Your task to perform on an android device: Open the Play Movies app and select the watchlist tab. Image 0: 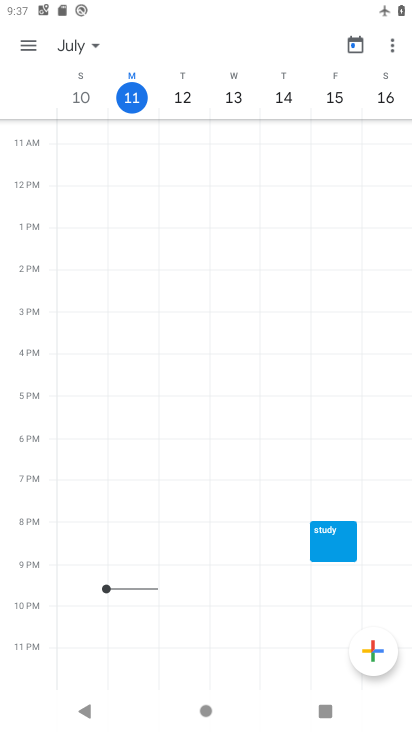
Step 0: press home button
Your task to perform on an android device: Open the Play Movies app and select the watchlist tab. Image 1: 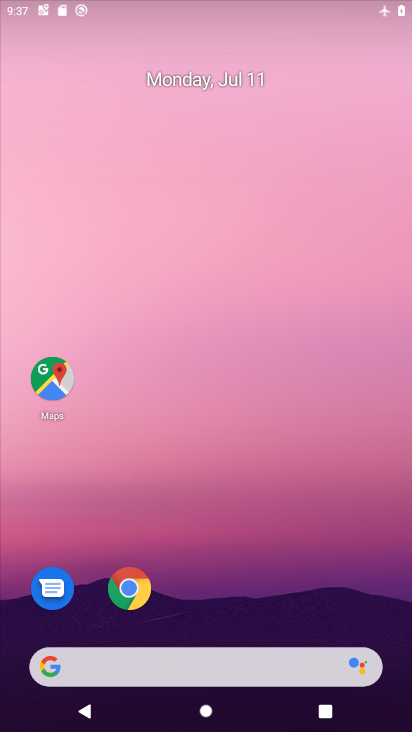
Step 1: drag from (238, 577) to (266, 87)
Your task to perform on an android device: Open the Play Movies app and select the watchlist tab. Image 2: 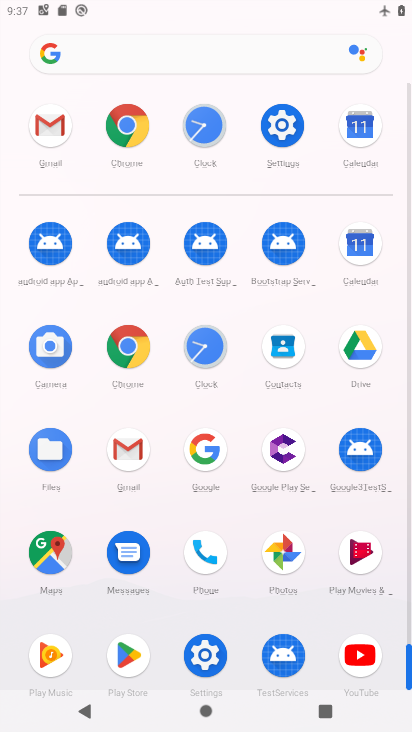
Step 2: click (356, 548)
Your task to perform on an android device: Open the Play Movies app and select the watchlist tab. Image 3: 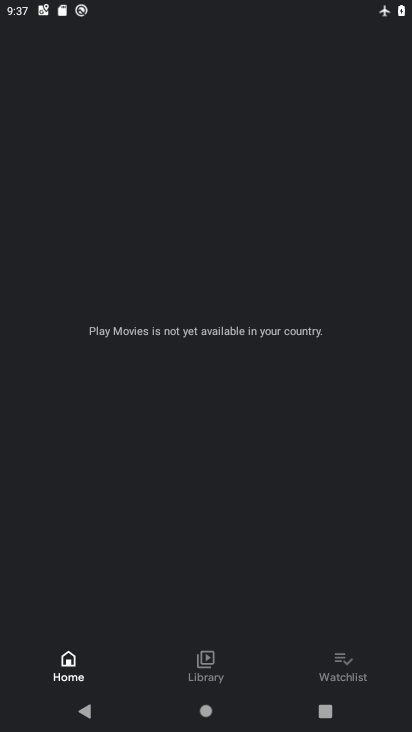
Step 3: click (340, 667)
Your task to perform on an android device: Open the Play Movies app and select the watchlist tab. Image 4: 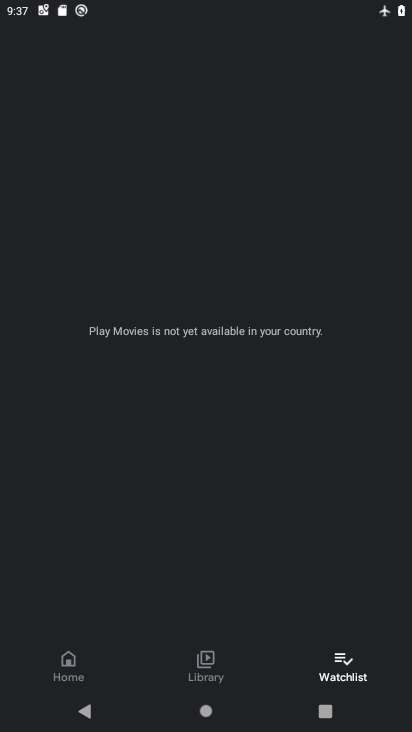
Step 4: click (340, 667)
Your task to perform on an android device: Open the Play Movies app and select the watchlist tab. Image 5: 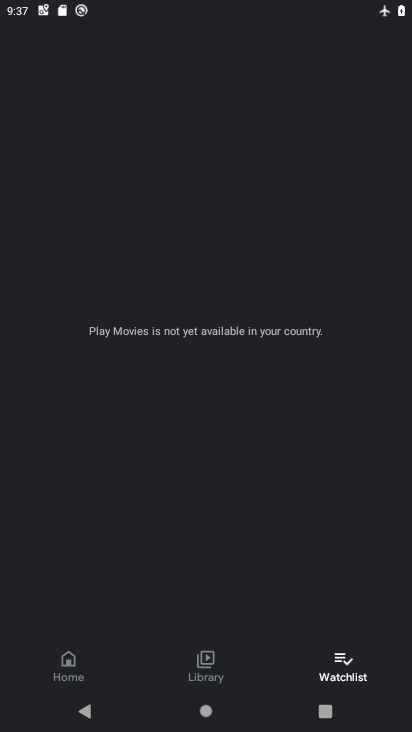
Step 5: task complete